Your task to perform on an android device: open chrome and create a bookmark for the current page Image 0: 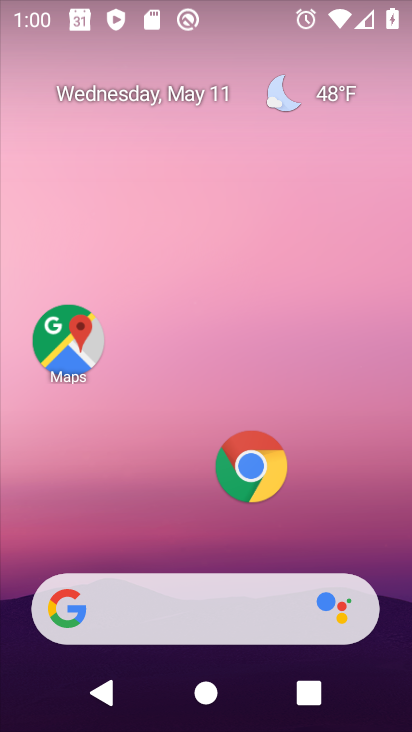
Step 0: click (257, 475)
Your task to perform on an android device: open chrome and create a bookmark for the current page Image 1: 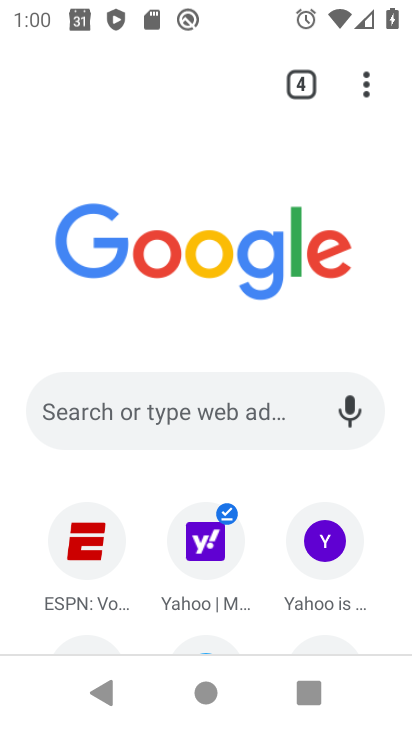
Step 1: task complete